Your task to perform on an android device: check android version Image 0: 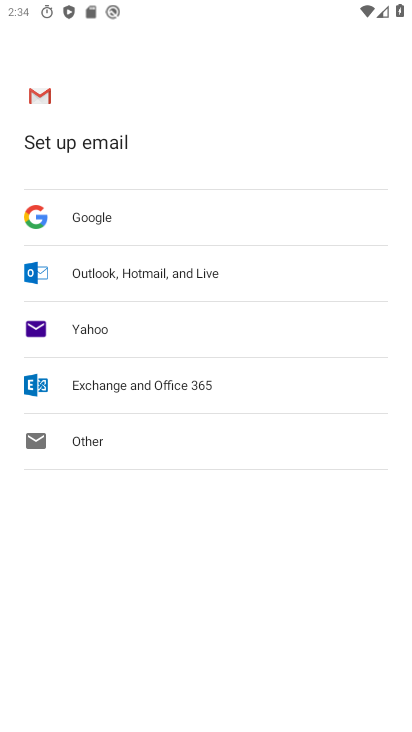
Step 0: press home button
Your task to perform on an android device: check android version Image 1: 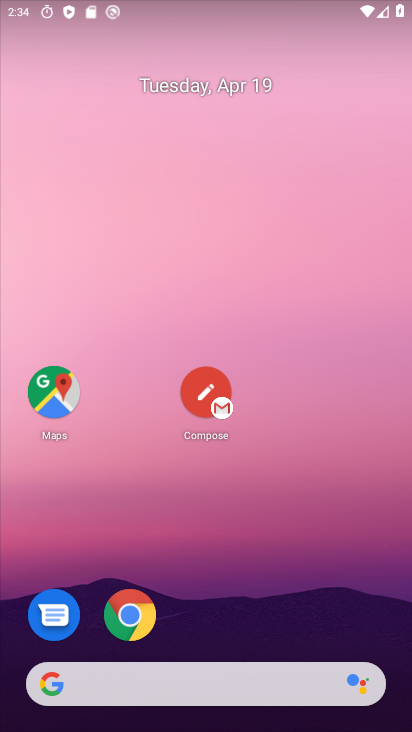
Step 1: drag from (306, 658) to (214, 11)
Your task to perform on an android device: check android version Image 2: 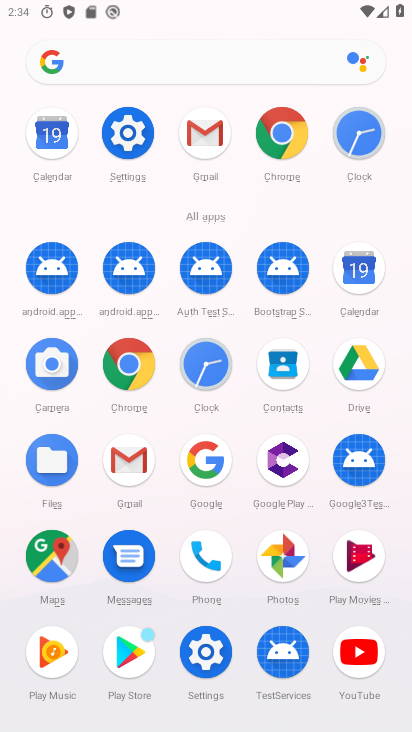
Step 2: drag from (238, 584) to (237, 84)
Your task to perform on an android device: check android version Image 3: 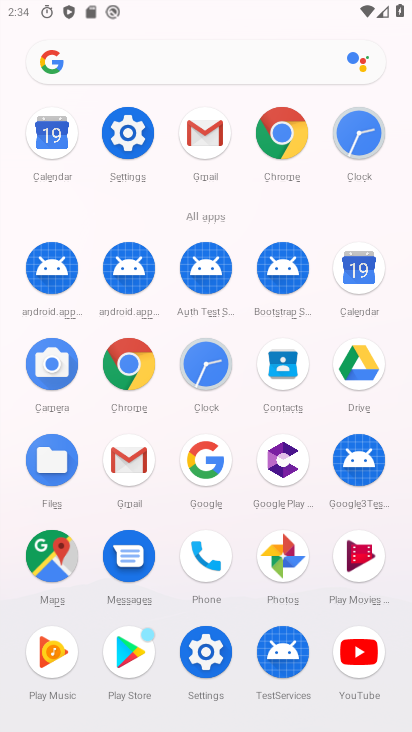
Step 3: click (201, 625)
Your task to perform on an android device: check android version Image 4: 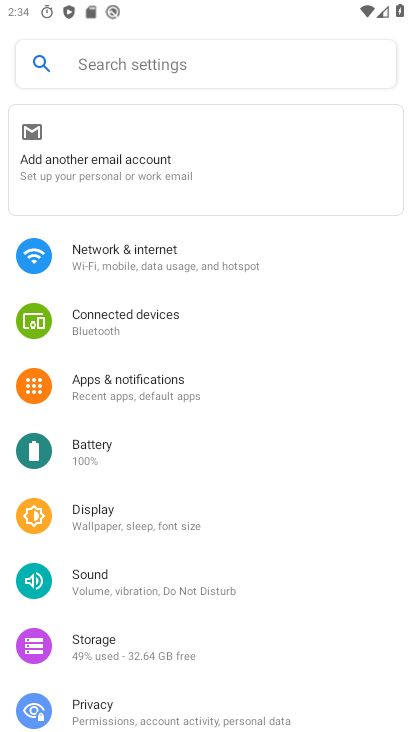
Step 4: drag from (305, 648) to (322, 170)
Your task to perform on an android device: check android version Image 5: 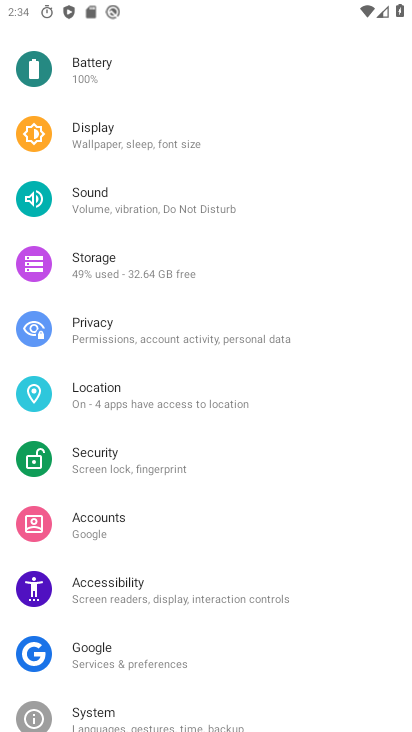
Step 5: drag from (293, 650) to (299, 5)
Your task to perform on an android device: check android version Image 6: 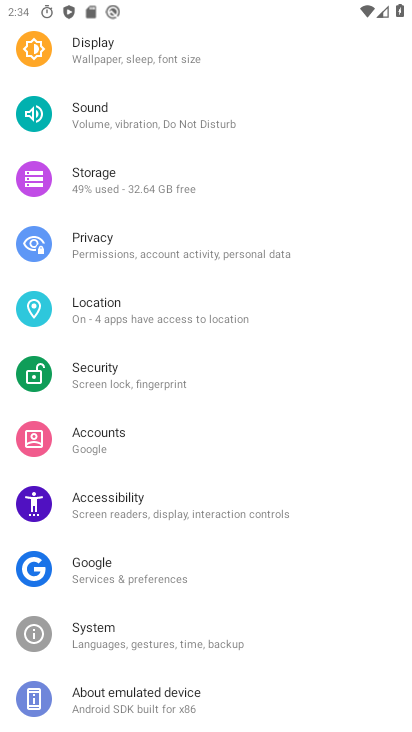
Step 6: click (207, 713)
Your task to perform on an android device: check android version Image 7: 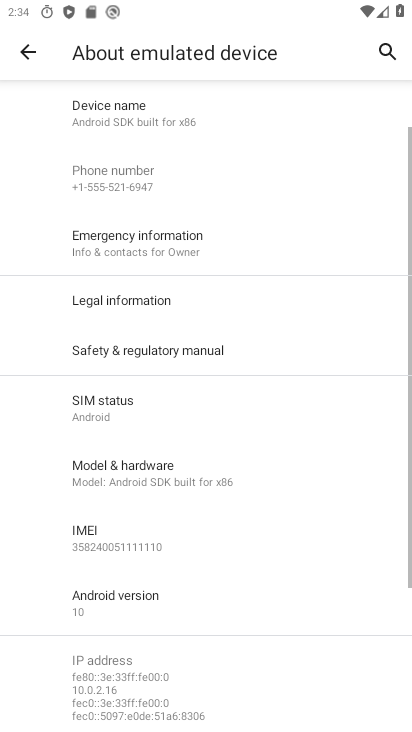
Step 7: click (178, 608)
Your task to perform on an android device: check android version Image 8: 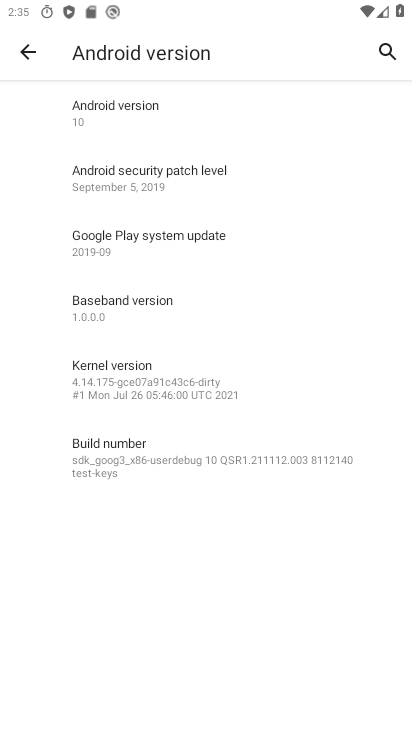
Step 8: task complete